Your task to perform on an android device: change your default location settings in chrome Image 0: 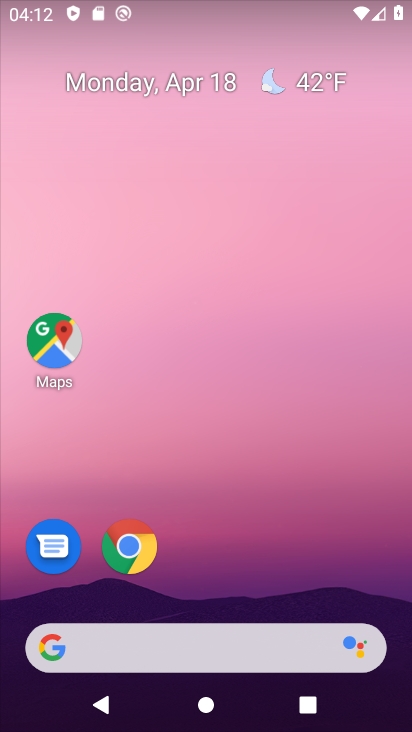
Step 0: drag from (177, 625) to (265, 241)
Your task to perform on an android device: change your default location settings in chrome Image 1: 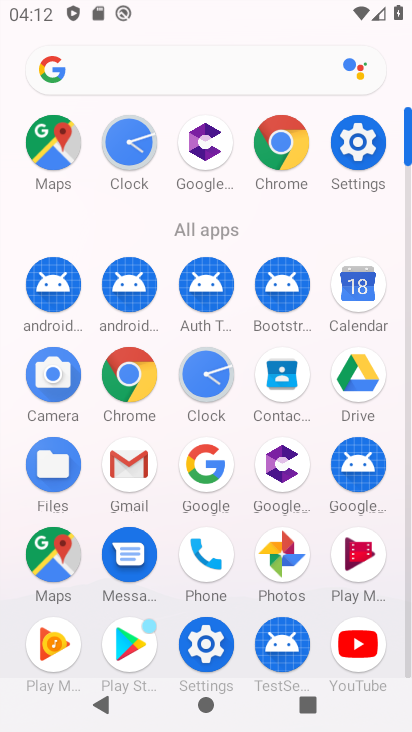
Step 1: click (285, 144)
Your task to perform on an android device: change your default location settings in chrome Image 2: 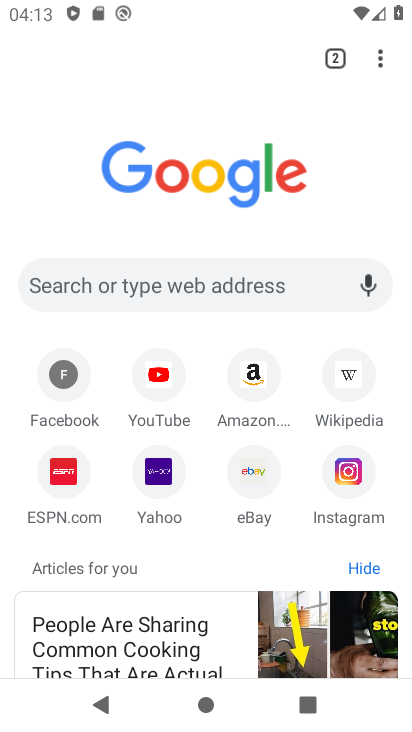
Step 2: click (370, 57)
Your task to perform on an android device: change your default location settings in chrome Image 3: 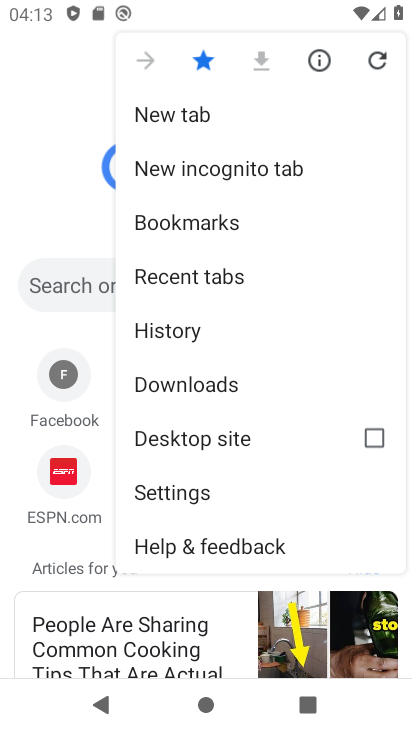
Step 3: click (201, 485)
Your task to perform on an android device: change your default location settings in chrome Image 4: 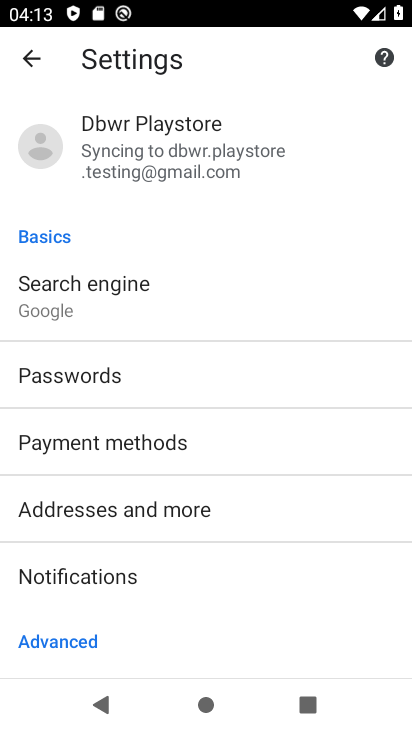
Step 4: drag from (173, 626) to (242, 266)
Your task to perform on an android device: change your default location settings in chrome Image 5: 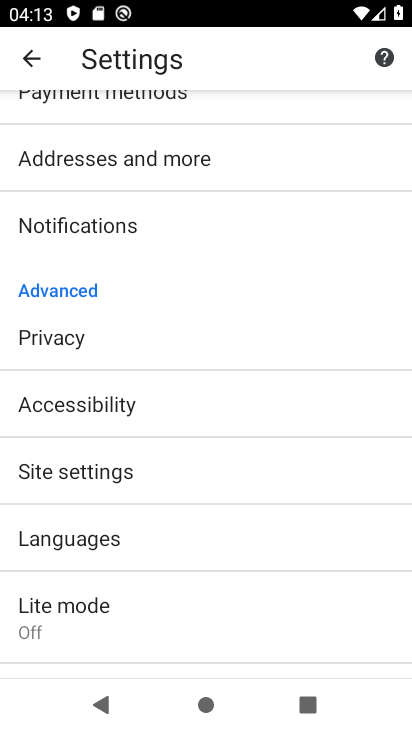
Step 5: drag from (154, 576) to (254, 261)
Your task to perform on an android device: change your default location settings in chrome Image 6: 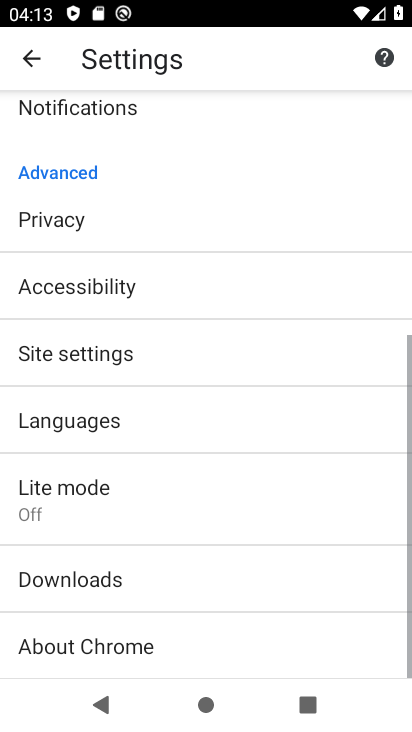
Step 6: drag from (181, 549) to (236, 228)
Your task to perform on an android device: change your default location settings in chrome Image 7: 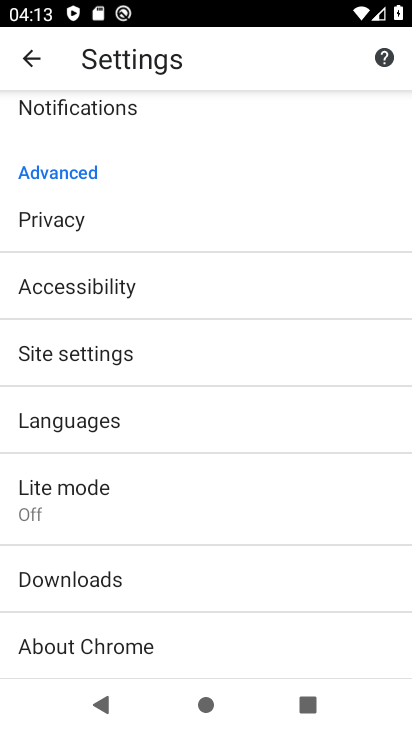
Step 7: click (141, 360)
Your task to perform on an android device: change your default location settings in chrome Image 8: 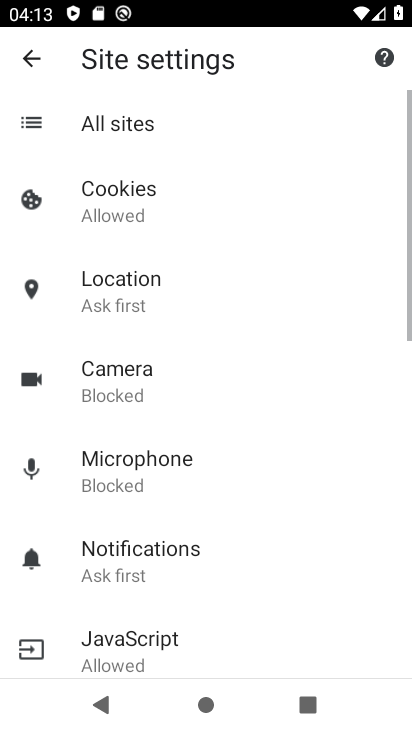
Step 8: click (174, 293)
Your task to perform on an android device: change your default location settings in chrome Image 9: 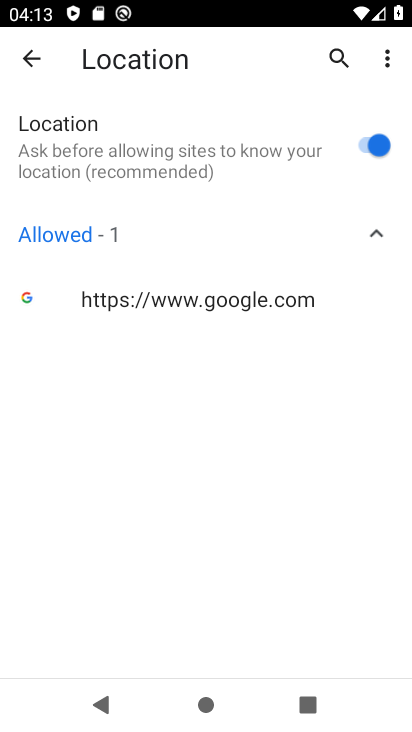
Step 9: click (363, 147)
Your task to perform on an android device: change your default location settings in chrome Image 10: 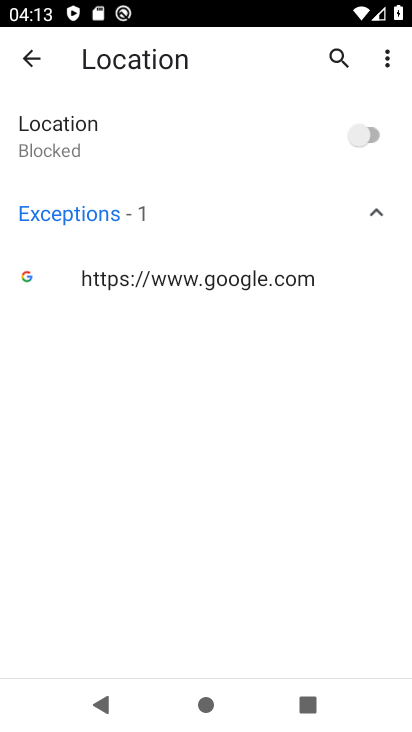
Step 10: task complete